Your task to perform on an android device: change the clock display to analog Image 0: 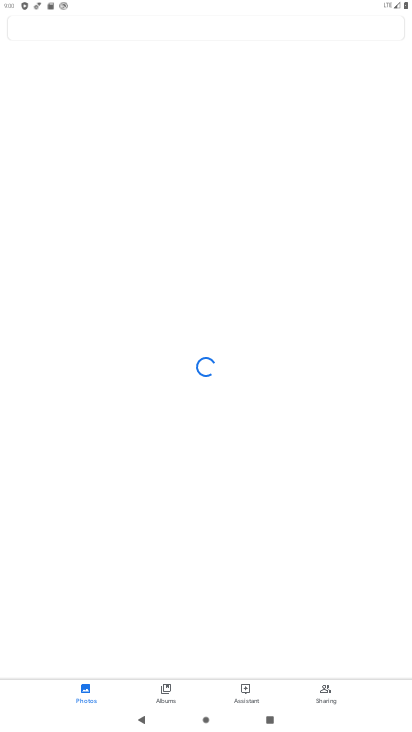
Step 0: press home button
Your task to perform on an android device: change the clock display to analog Image 1: 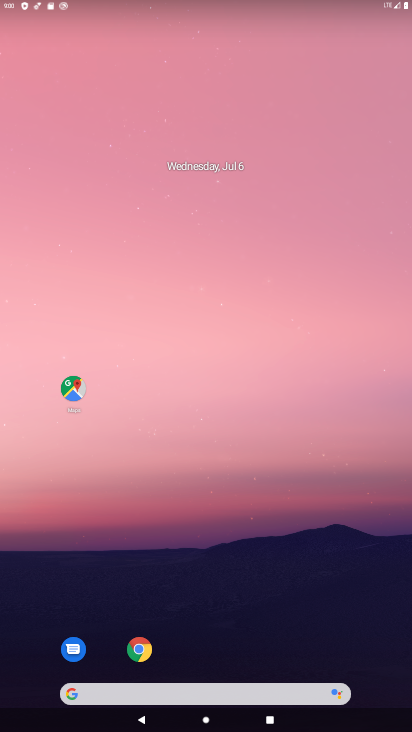
Step 1: drag from (208, 668) to (183, 26)
Your task to perform on an android device: change the clock display to analog Image 2: 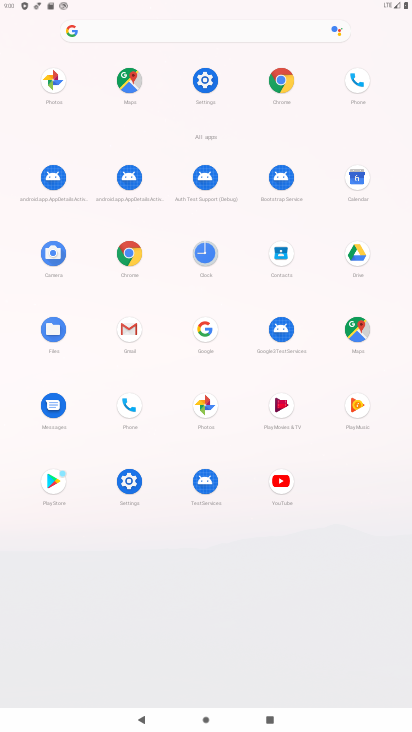
Step 2: click (212, 248)
Your task to perform on an android device: change the clock display to analog Image 3: 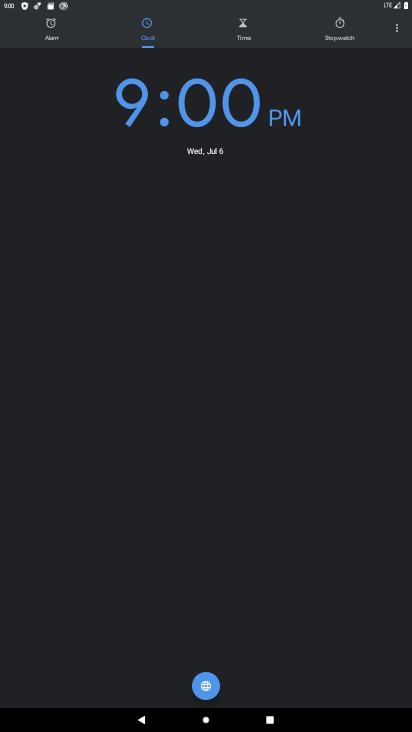
Step 3: click (396, 30)
Your task to perform on an android device: change the clock display to analog Image 4: 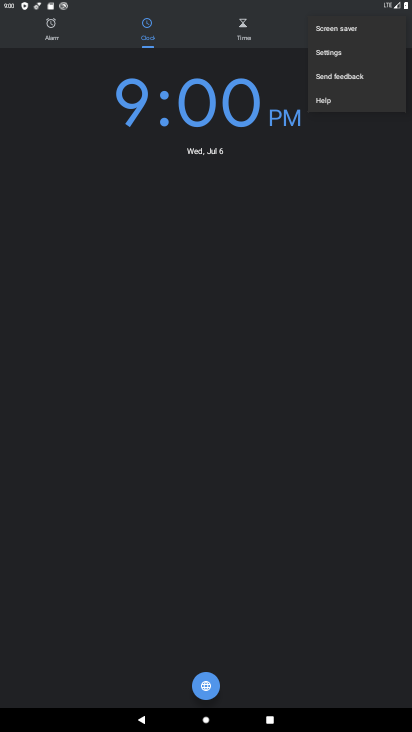
Step 4: click (328, 55)
Your task to perform on an android device: change the clock display to analog Image 5: 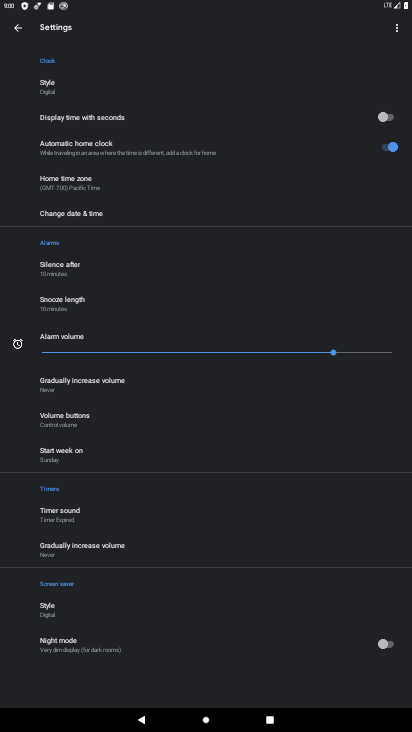
Step 5: click (55, 96)
Your task to perform on an android device: change the clock display to analog Image 6: 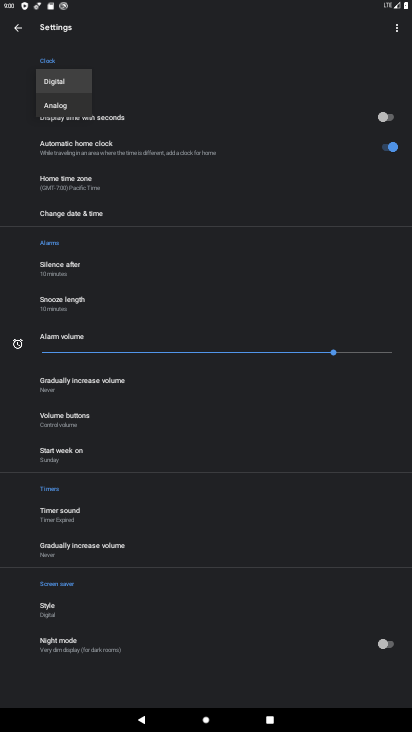
Step 6: click (63, 104)
Your task to perform on an android device: change the clock display to analog Image 7: 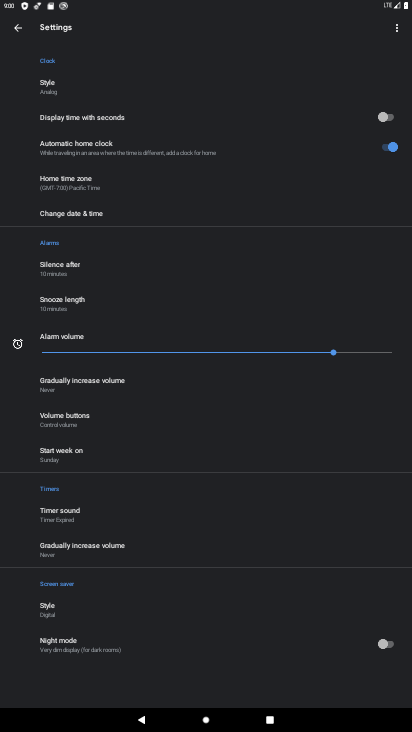
Step 7: task complete